Your task to perform on an android device: Open calendar and show me the first week of next month Image 0: 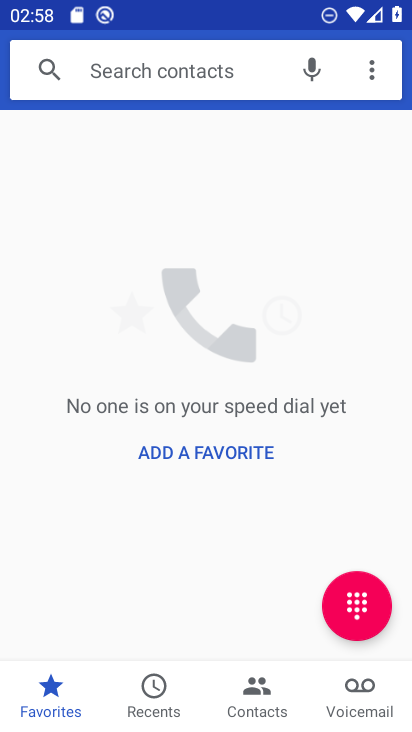
Step 0: press home button
Your task to perform on an android device: Open calendar and show me the first week of next month Image 1: 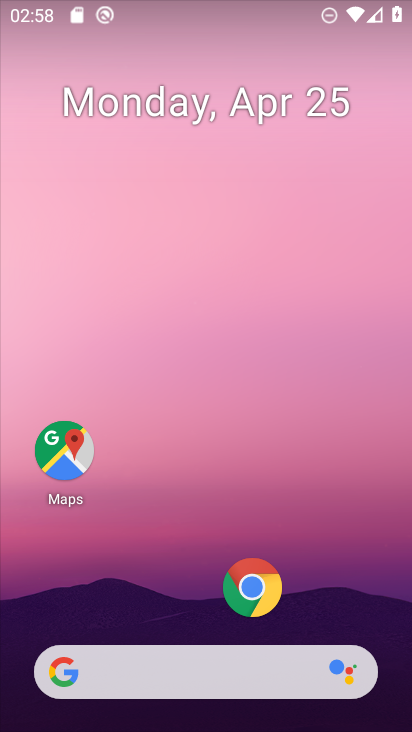
Step 1: drag from (201, 616) to (251, 10)
Your task to perform on an android device: Open calendar and show me the first week of next month Image 2: 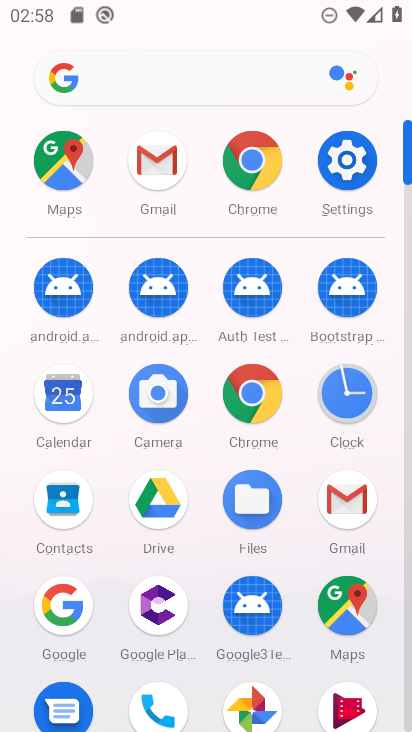
Step 2: click (62, 389)
Your task to perform on an android device: Open calendar and show me the first week of next month Image 3: 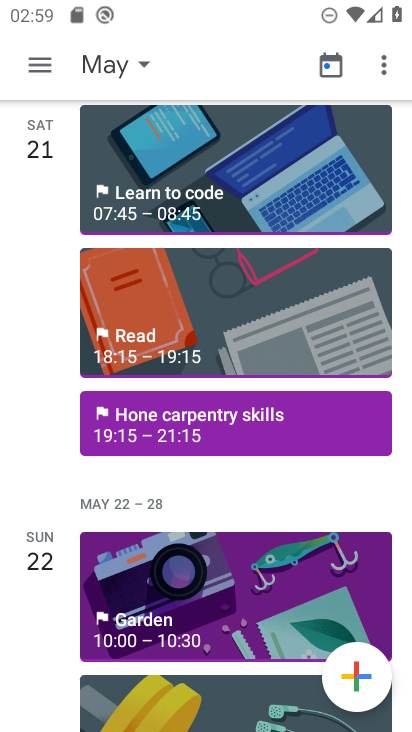
Step 3: click (43, 56)
Your task to perform on an android device: Open calendar and show me the first week of next month Image 4: 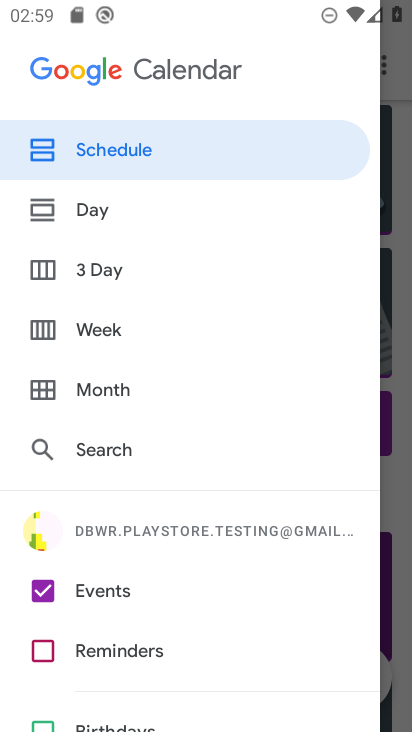
Step 4: click (79, 326)
Your task to perform on an android device: Open calendar and show me the first week of next month Image 5: 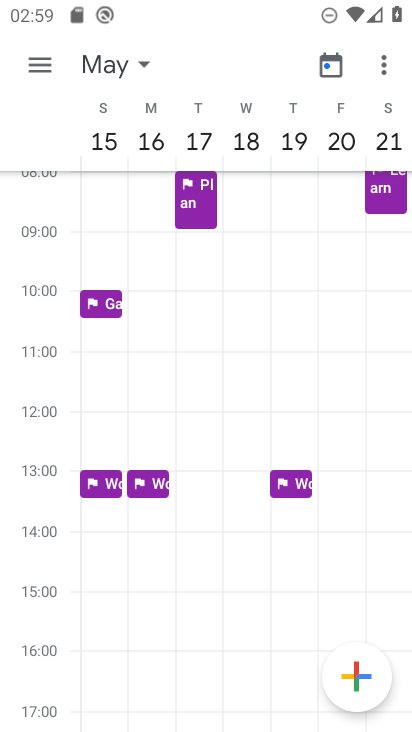
Step 5: drag from (107, 123) to (395, 152)
Your task to perform on an android device: Open calendar and show me the first week of next month Image 6: 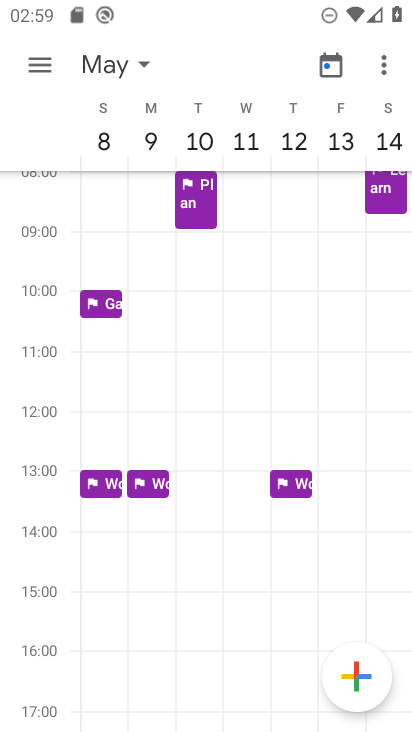
Step 6: drag from (117, 139) to (405, 153)
Your task to perform on an android device: Open calendar and show me the first week of next month Image 7: 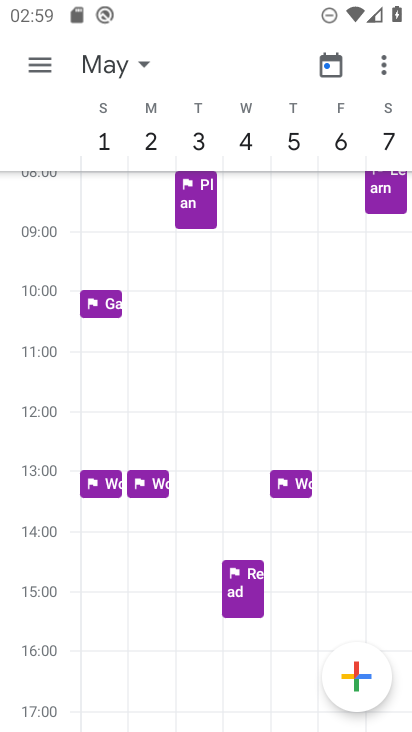
Step 7: click (99, 140)
Your task to perform on an android device: Open calendar and show me the first week of next month Image 8: 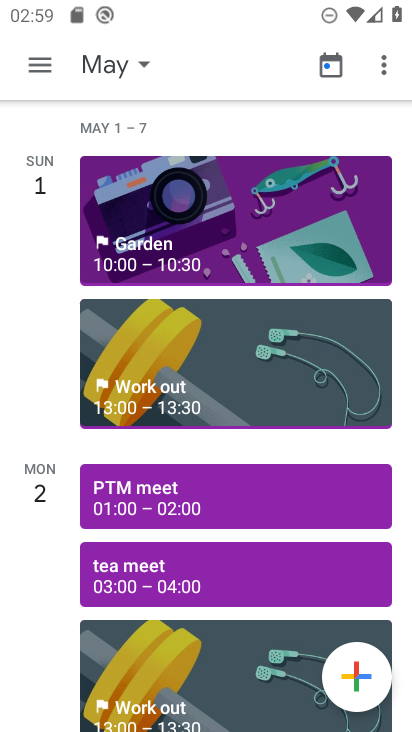
Step 8: task complete